Your task to perform on an android device: turn off data saver in the chrome app Image 0: 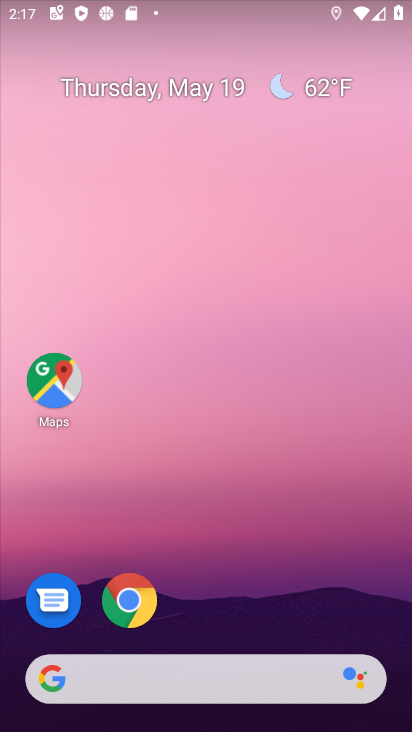
Step 0: press home button
Your task to perform on an android device: turn off data saver in the chrome app Image 1: 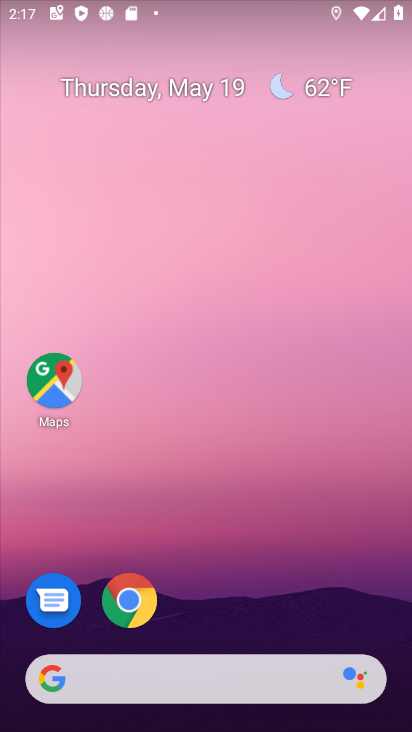
Step 1: drag from (13, 701) to (212, 230)
Your task to perform on an android device: turn off data saver in the chrome app Image 2: 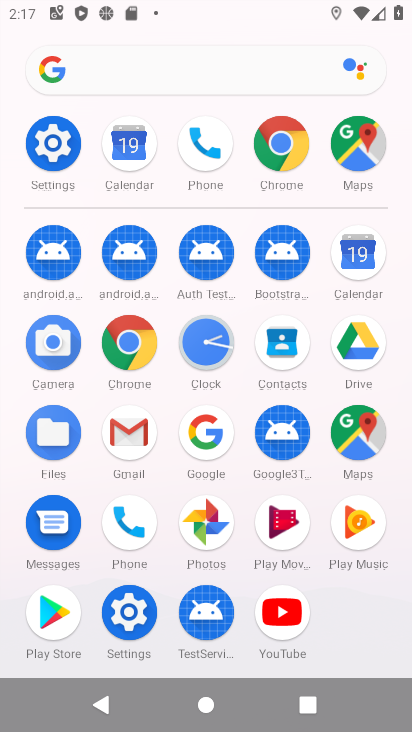
Step 2: click (58, 144)
Your task to perform on an android device: turn off data saver in the chrome app Image 3: 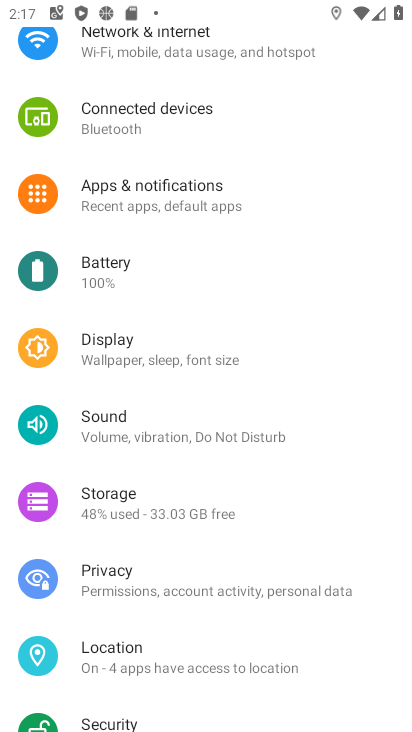
Step 3: press home button
Your task to perform on an android device: turn off data saver in the chrome app Image 4: 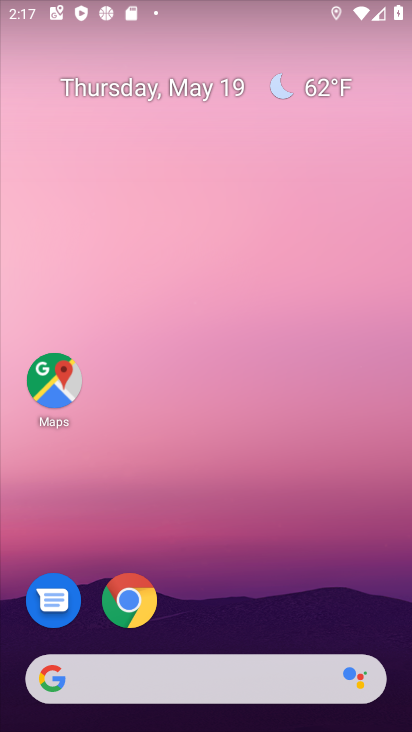
Step 4: click (123, 591)
Your task to perform on an android device: turn off data saver in the chrome app Image 5: 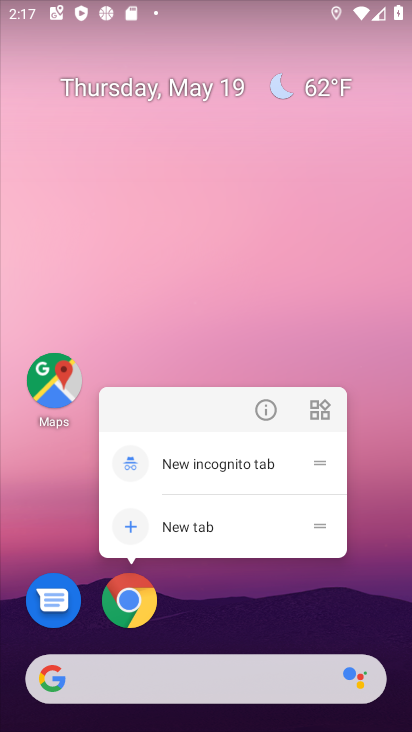
Step 5: click (127, 602)
Your task to perform on an android device: turn off data saver in the chrome app Image 6: 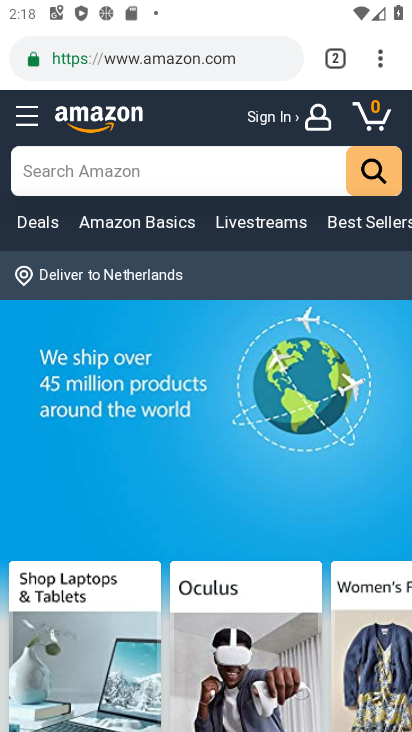
Step 6: click (384, 68)
Your task to perform on an android device: turn off data saver in the chrome app Image 7: 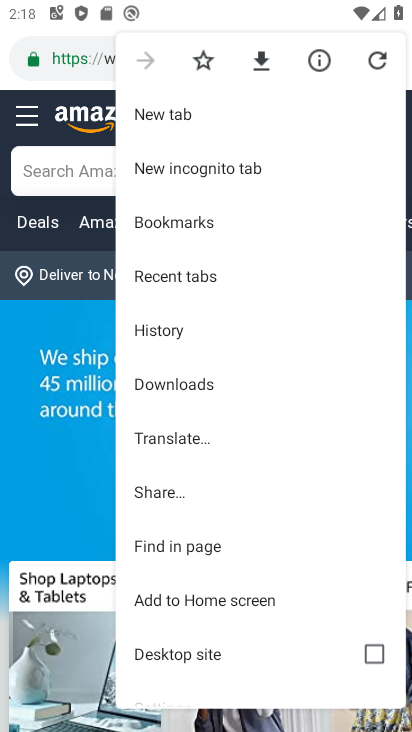
Step 7: drag from (152, 642) to (306, 146)
Your task to perform on an android device: turn off data saver in the chrome app Image 8: 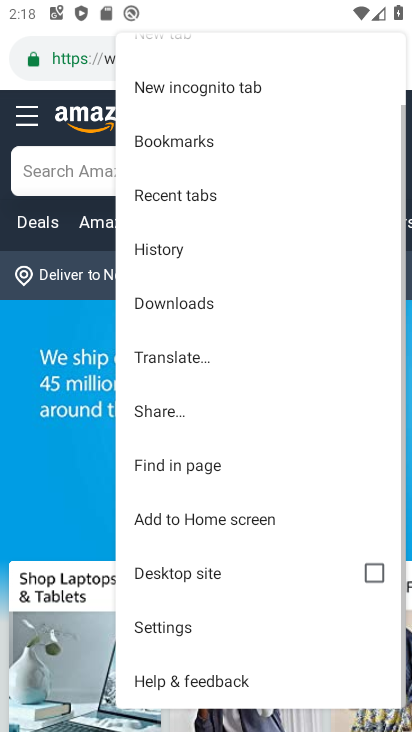
Step 8: click (154, 626)
Your task to perform on an android device: turn off data saver in the chrome app Image 9: 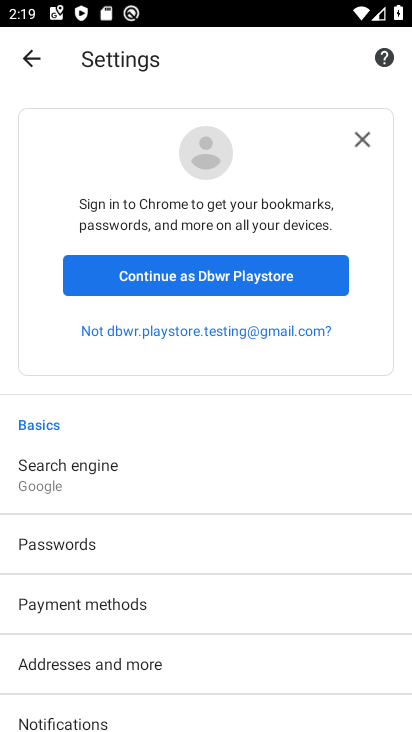
Step 9: drag from (349, 556) to (125, 286)
Your task to perform on an android device: turn off data saver in the chrome app Image 10: 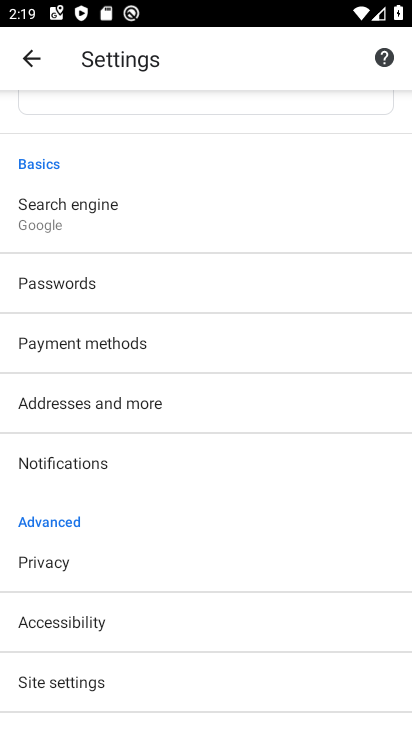
Step 10: drag from (21, 591) to (182, 269)
Your task to perform on an android device: turn off data saver in the chrome app Image 11: 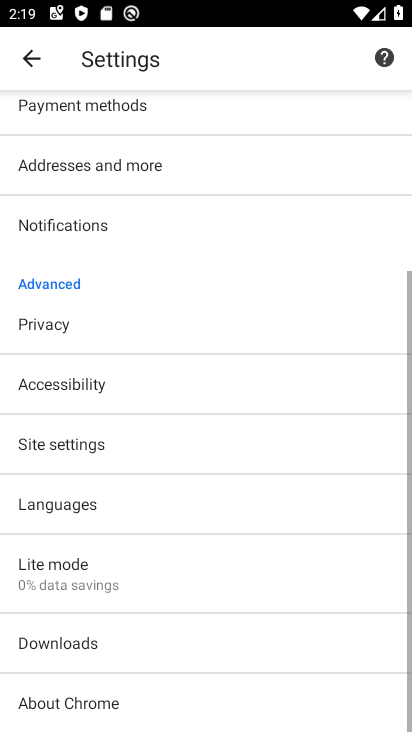
Step 11: click (97, 572)
Your task to perform on an android device: turn off data saver in the chrome app Image 12: 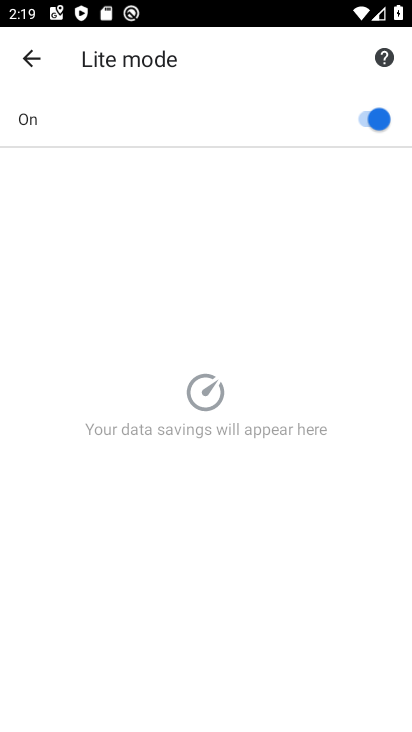
Step 12: click (387, 125)
Your task to perform on an android device: turn off data saver in the chrome app Image 13: 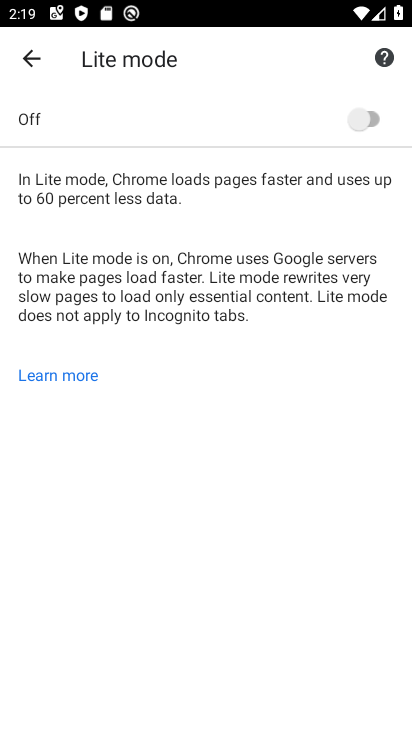
Step 13: task complete